Your task to perform on an android device: turn on wifi Image 0: 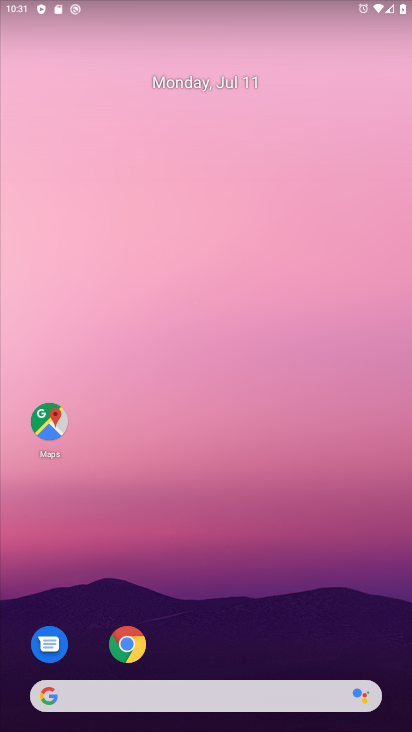
Step 0: press home button
Your task to perform on an android device: turn on wifi Image 1: 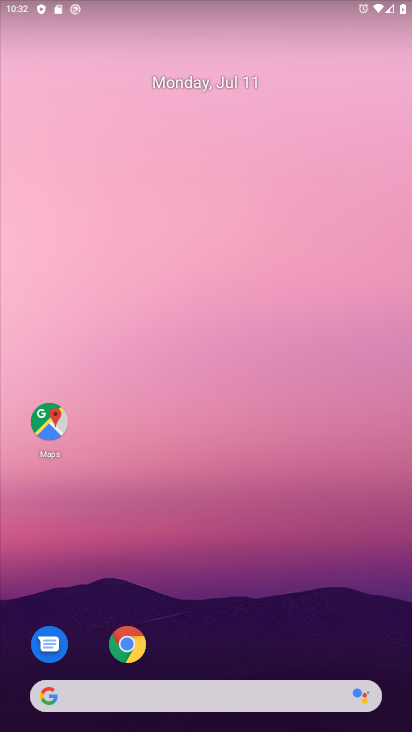
Step 1: task complete